Your task to perform on an android device: make emails show in primary in the gmail app Image 0: 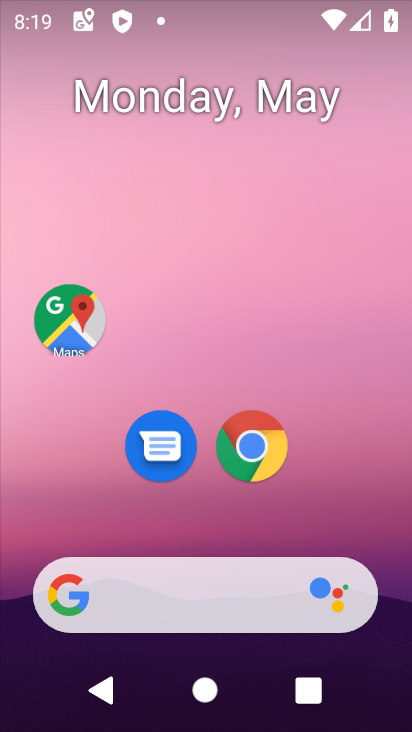
Step 0: drag from (394, 493) to (353, 92)
Your task to perform on an android device: make emails show in primary in the gmail app Image 1: 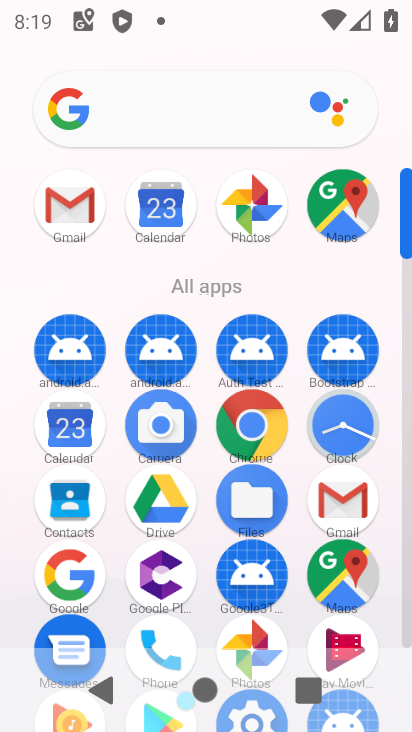
Step 1: click (333, 500)
Your task to perform on an android device: make emails show in primary in the gmail app Image 2: 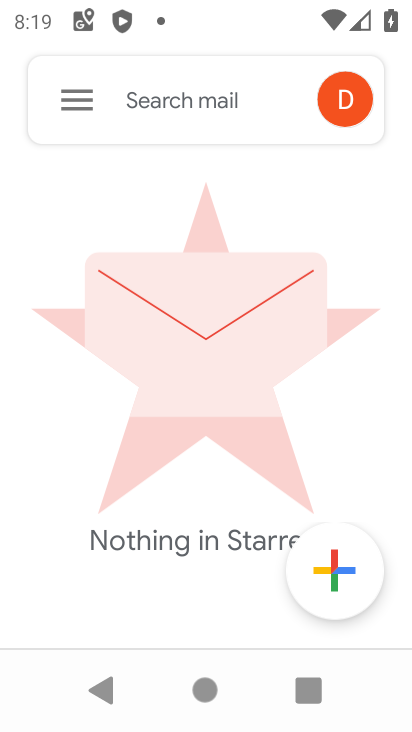
Step 2: click (82, 110)
Your task to perform on an android device: make emails show in primary in the gmail app Image 3: 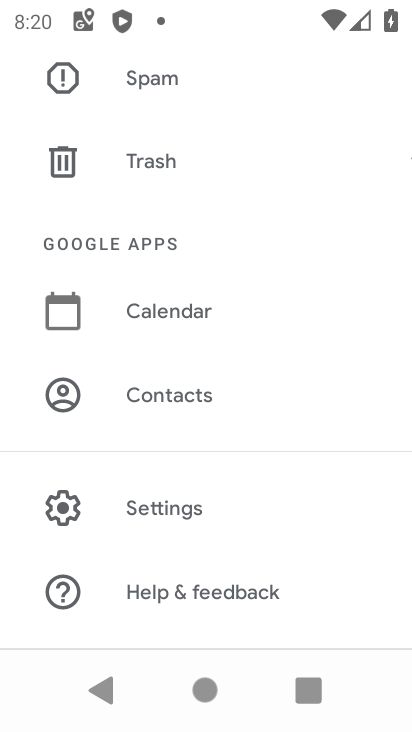
Step 3: drag from (242, 454) to (217, 242)
Your task to perform on an android device: make emails show in primary in the gmail app Image 4: 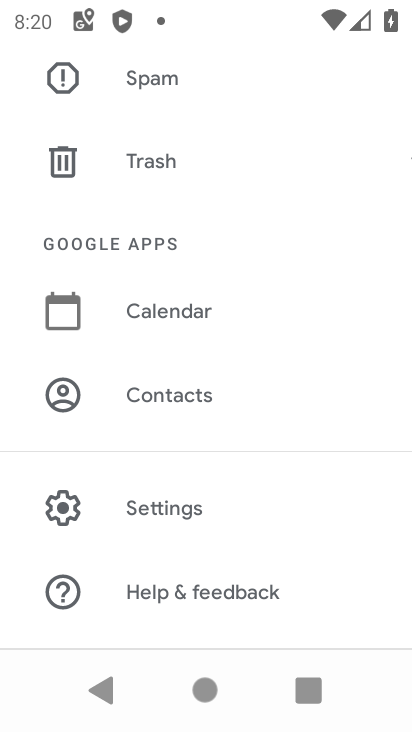
Step 4: drag from (261, 500) to (255, 170)
Your task to perform on an android device: make emails show in primary in the gmail app Image 5: 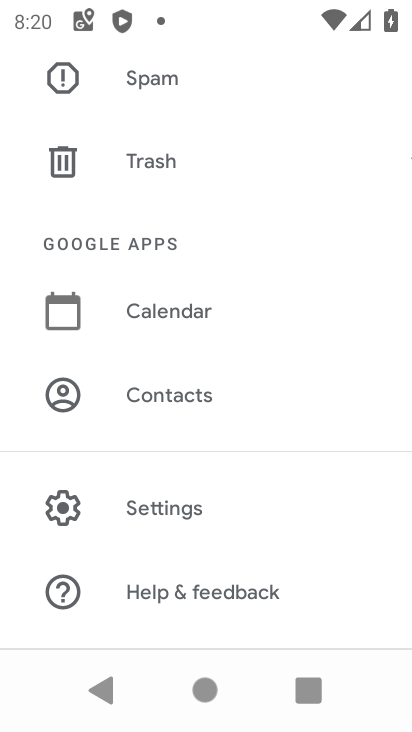
Step 5: click (196, 509)
Your task to perform on an android device: make emails show in primary in the gmail app Image 6: 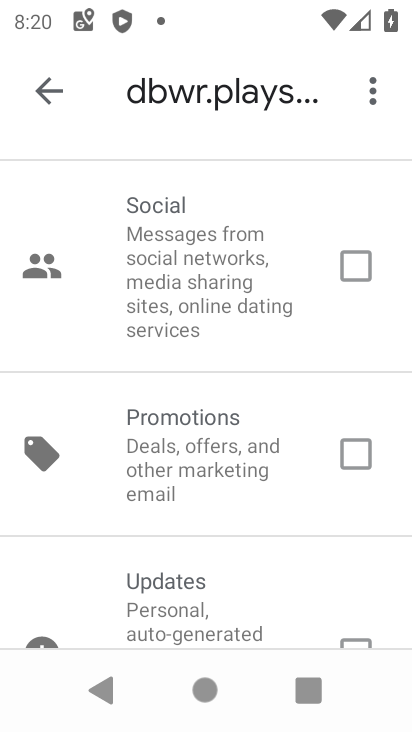
Step 6: task complete